Your task to perform on an android device: What is the recent news? Image 0: 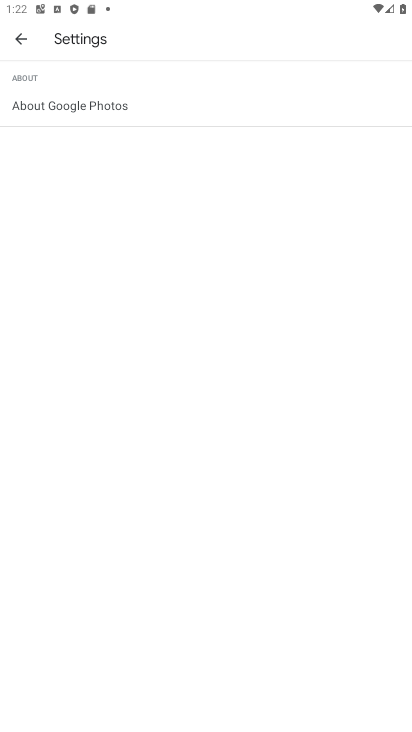
Step 0: press home button
Your task to perform on an android device: What is the recent news? Image 1: 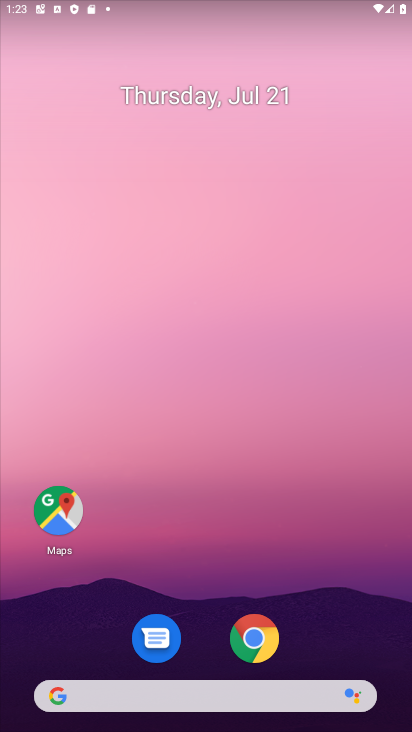
Step 1: click (220, 710)
Your task to perform on an android device: What is the recent news? Image 2: 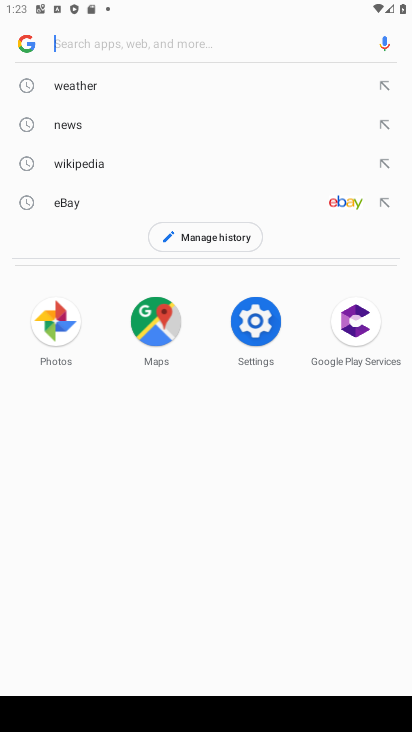
Step 2: type "recent news"
Your task to perform on an android device: What is the recent news? Image 3: 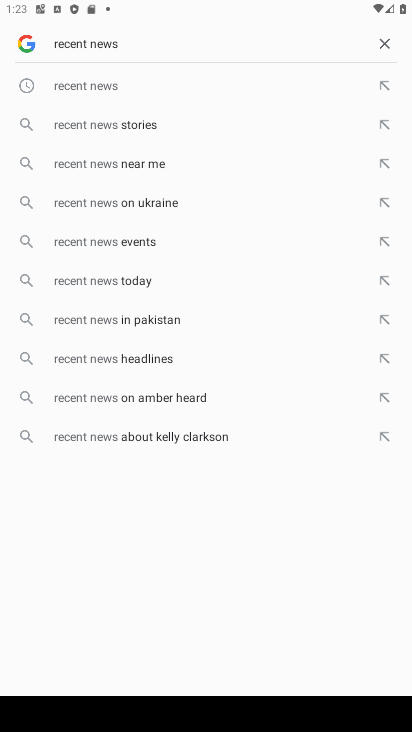
Step 3: click (145, 84)
Your task to perform on an android device: What is the recent news? Image 4: 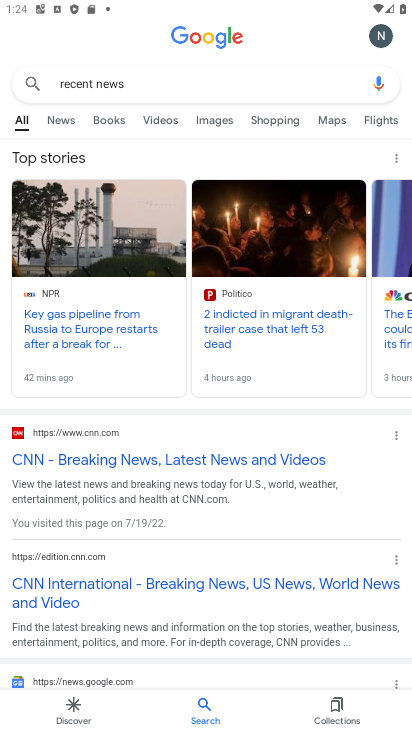
Step 4: task complete